Your task to perform on an android device: turn on wifi Image 0: 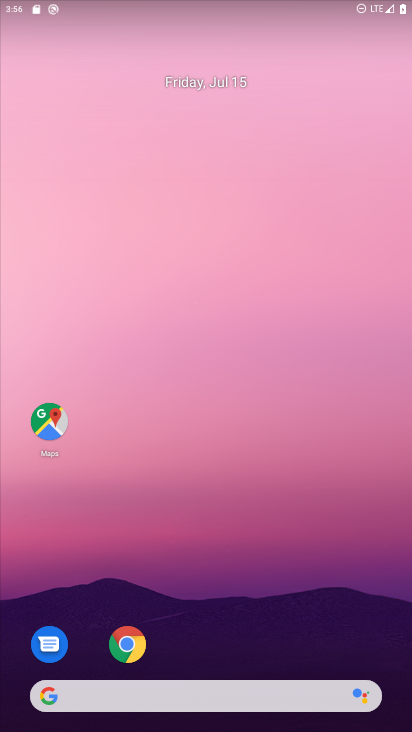
Step 0: drag from (236, 34) to (205, 536)
Your task to perform on an android device: turn on wifi Image 1: 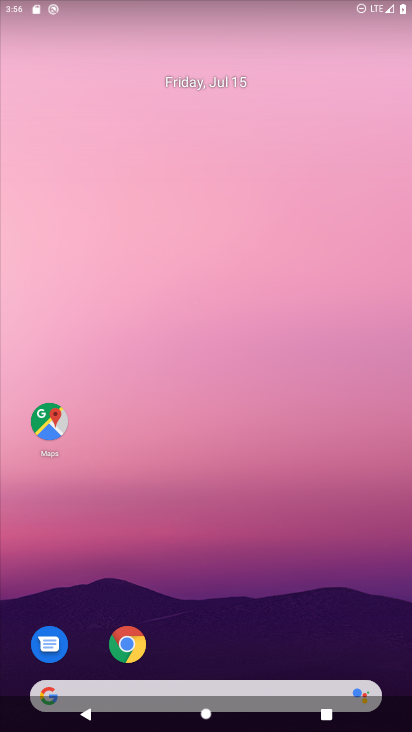
Step 1: drag from (50, 3) to (56, 487)
Your task to perform on an android device: turn on wifi Image 2: 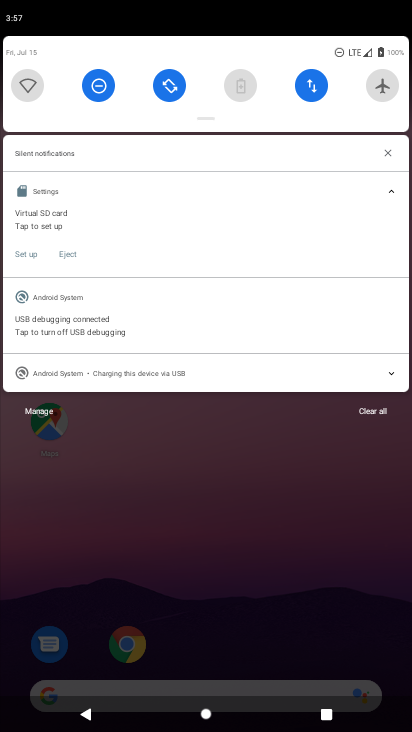
Step 2: click (23, 85)
Your task to perform on an android device: turn on wifi Image 3: 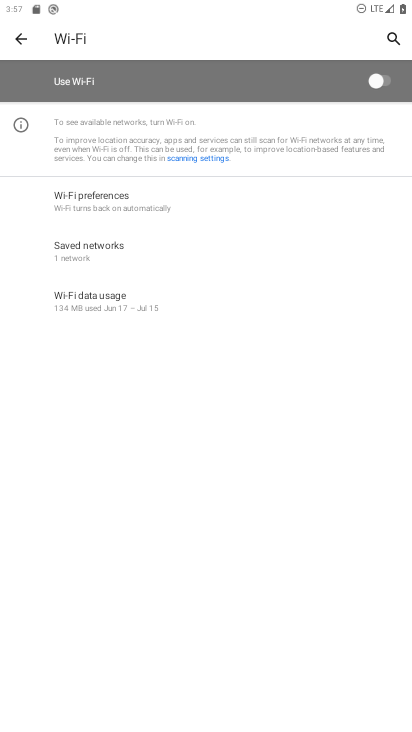
Step 3: click (384, 78)
Your task to perform on an android device: turn on wifi Image 4: 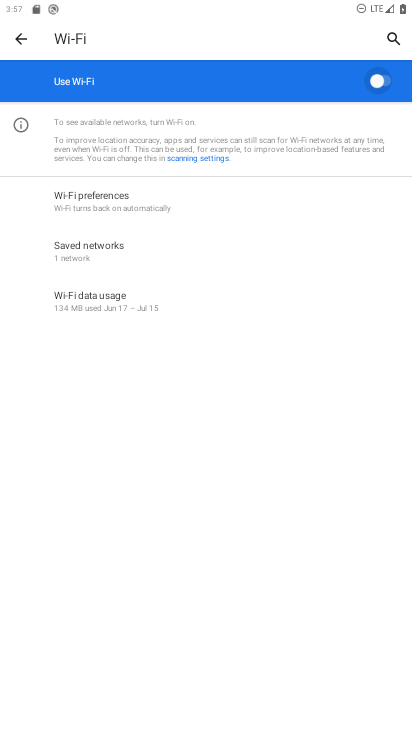
Step 4: click (374, 85)
Your task to perform on an android device: turn on wifi Image 5: 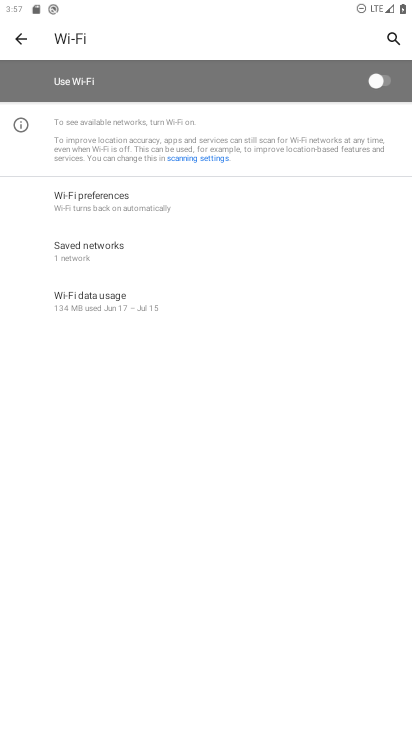
Step 5: click (371, 82)
Your task to perform on an android device: turn on wifi Image 6: 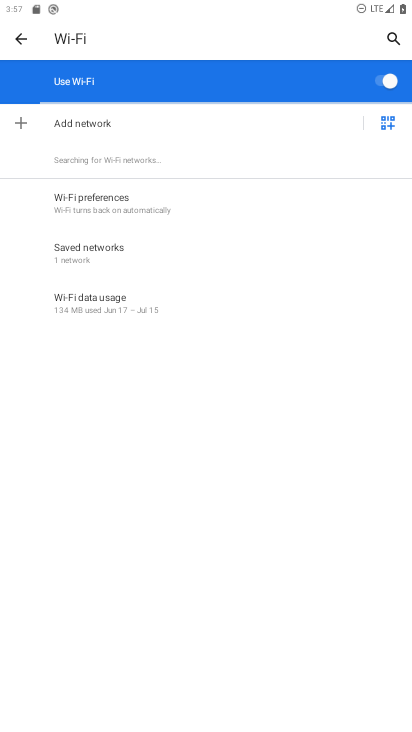
Step 6: task complete